Your task to perform on an android device: open a bookmark in the chrome app Image 0: 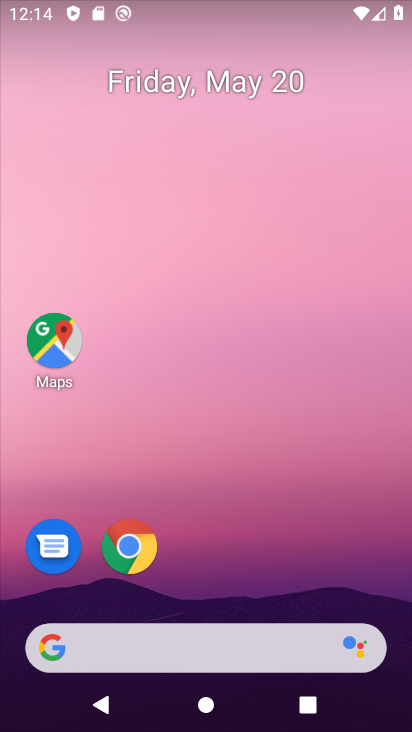
Step 0: click (137, 540)
Your task to perform on an android device: open a bookmark in the chrome app Image 1: 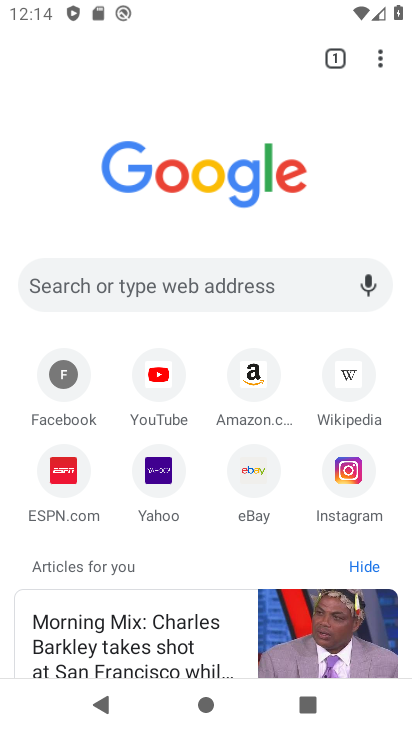
Step 1: click (382, 65)
Your task to perform on an android device: open a bookmark in the chrome app Image 2: 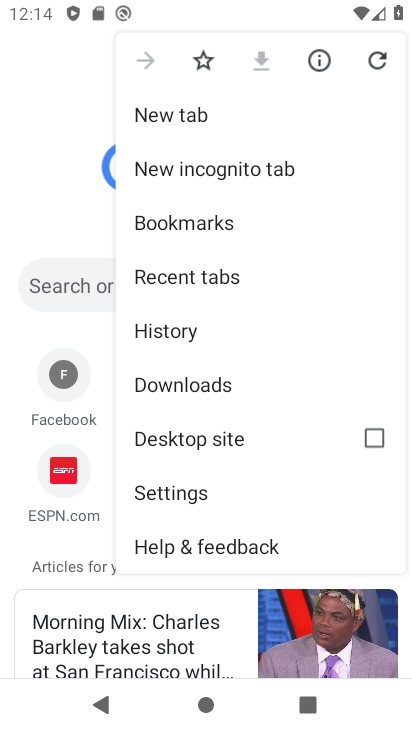
Step 2: click (227, 223)
Your task to perform on an android device: open a bookmark in the chrome app Image 3: 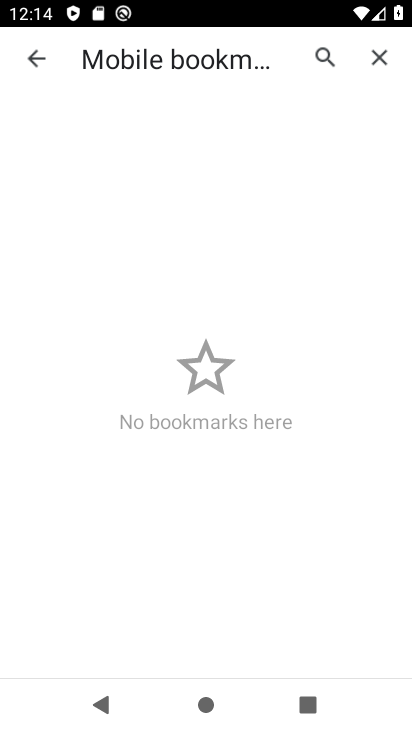
Step 3: task complete